Your task to perform on an android device: turn on data saver in the chrome app Image 0: 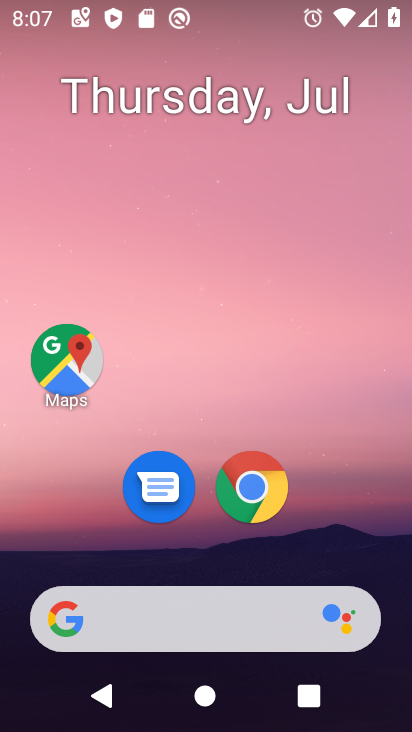
Step 0: drag from (289, 615) to (221, 247)
Your task to perform on an android device: turn on data saver in the chrome app Image 1: 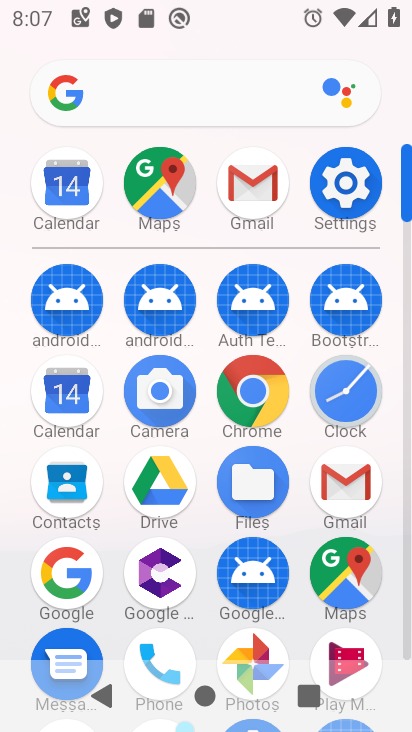
Step 1: click (246, 413)
Your task to perform on an android device: turn on data saver in the chrome app Image 2: 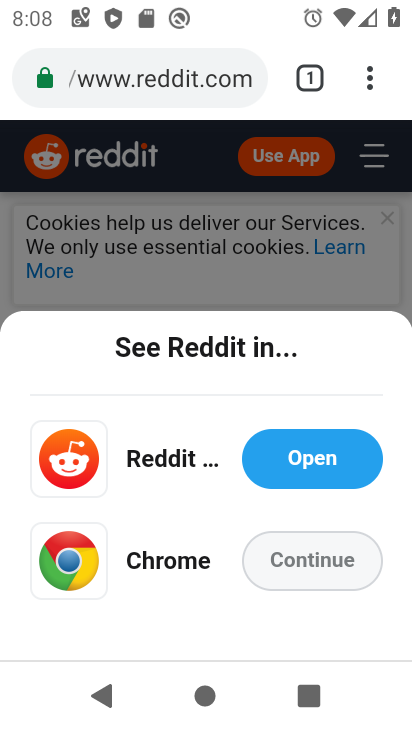
Step 2: click (367, 83)
Your task to perform on an android device: turn on data saver in the chrome app Image 3: 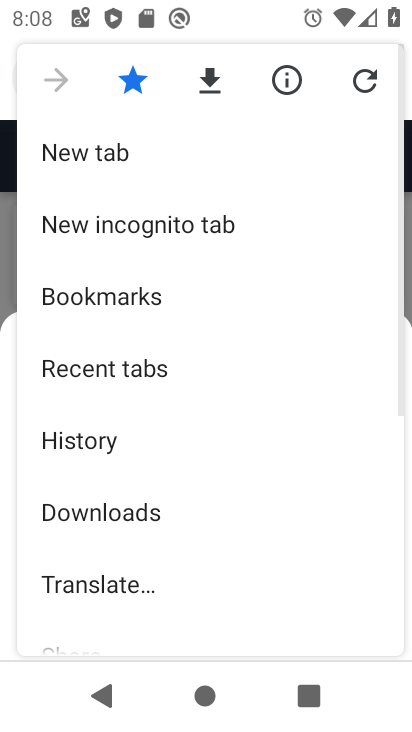
Step 3: drag from (225, 498) to (266, 92)
Your task to perform on an android device: turn on data saver in the chrome app Image 4: 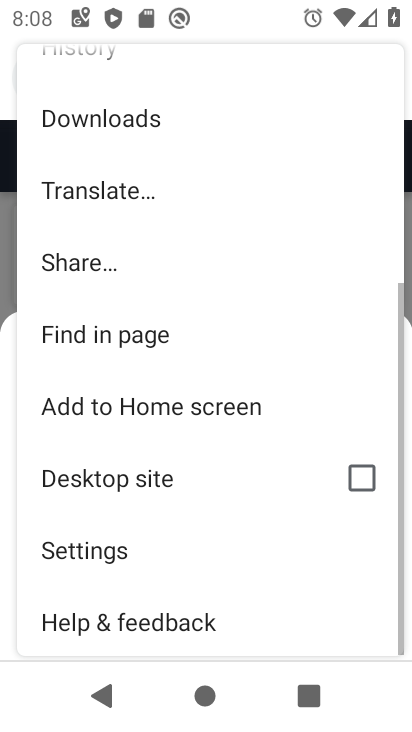
Step 4: click (121, 564)
Your task to perform on an android device: turn on data saver in the chrome app Image 5: 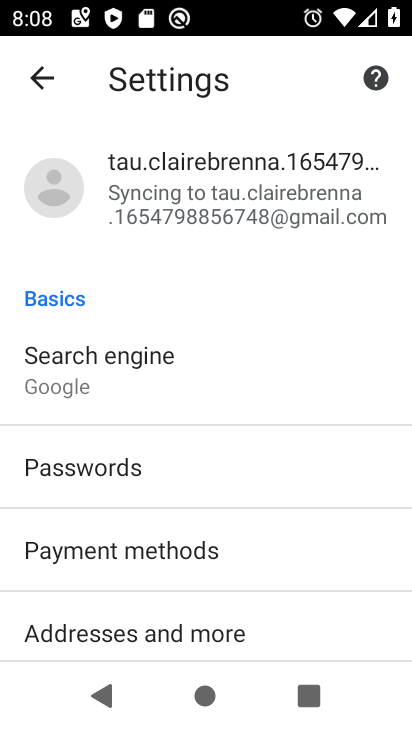
Step 5: drag from (216, 585) to (224, 310)
Your task to perform on an android device: turn on data saver in the chrome app Image 6: 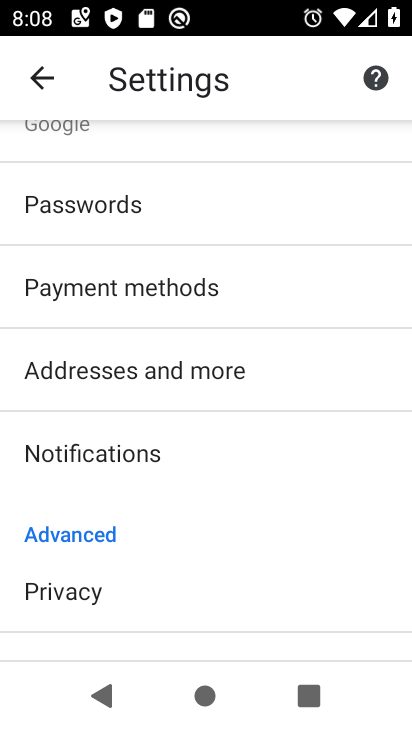
Step 6: drag from (103, 590) to (159, 335)
Your task to perform on an android device: turn on data saver in the chrome app Image 7: 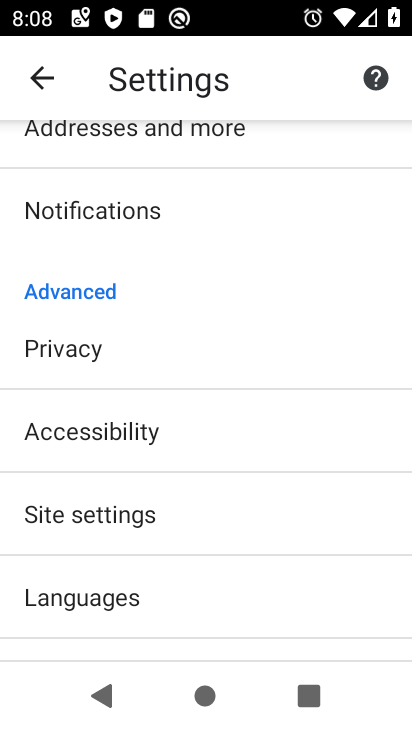
Step 7: drag from (127, 546) to (163, 363)
Your task to perform on an android device: turn on data saver in the chrome app Image 8: 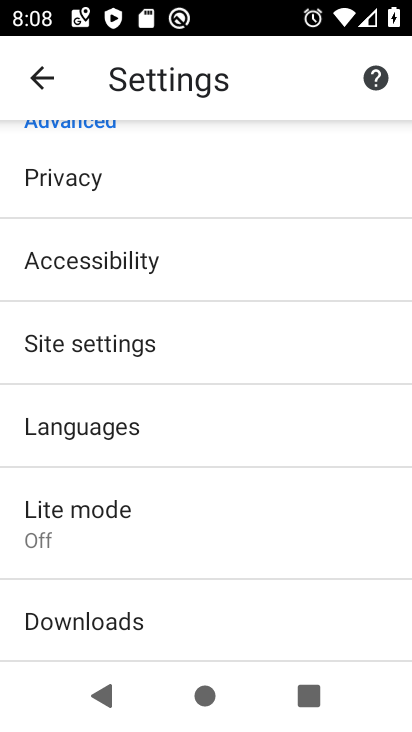
Step 8: click (152, 551)
Your task to perform on an android device: turn on data saver in the chrome app Image 9: 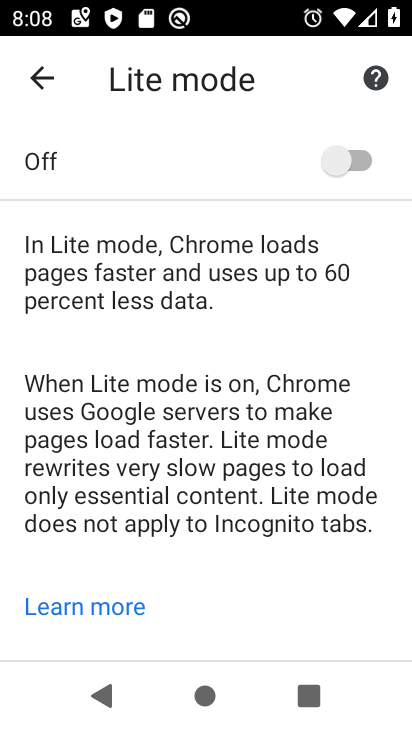
Step 9: click (347, 161)
Your task to perform on an android device: turn on data saver in the chrome app Image 10: 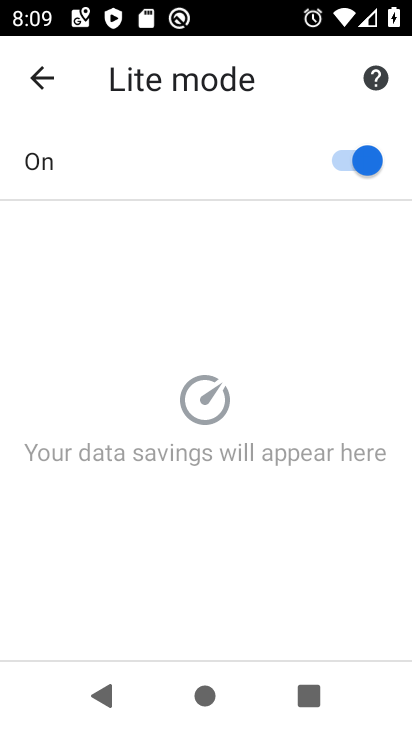
Step 10: task complete